Your task to perform on an android device: Open display settings Image 0: 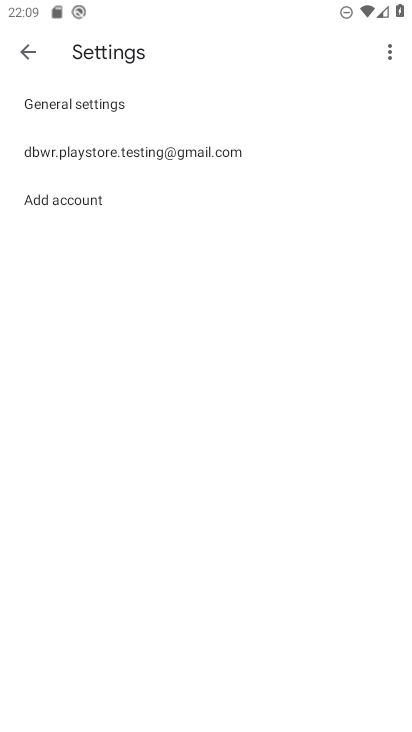
Step 0: press home button
Your task to perform on an android device: Open display settings Image 1: 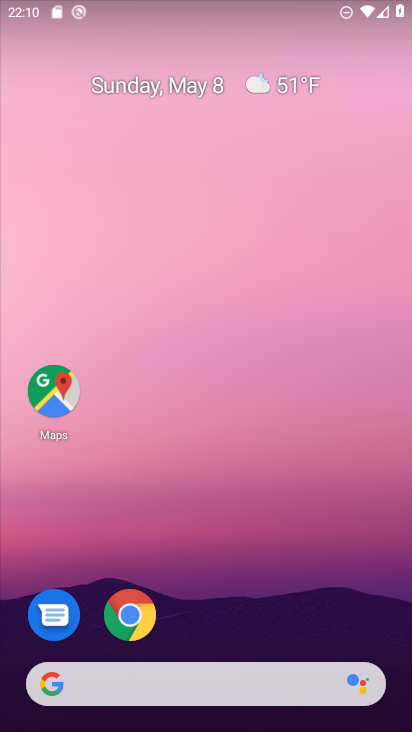
Step 1: drag from (287, 598) to (289, 37)
Your task to perform on an android device: Open display settings Image 2: 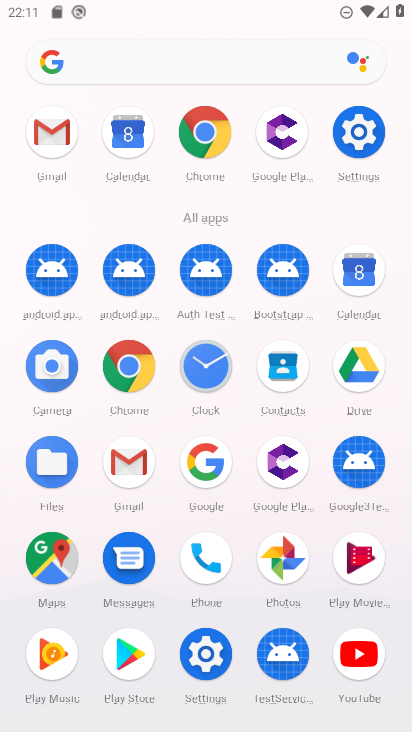
Step 2: click (368, 132)
Your task to perform on an android device: Open display settings Image 3: 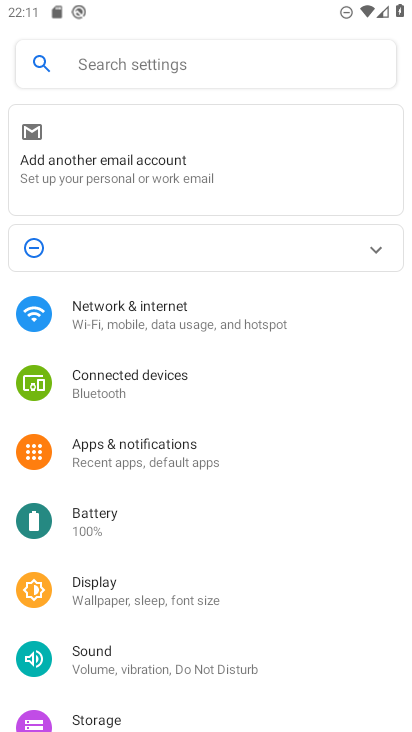
Step 3: click (155, 600)
Your task to perform on an android device: Open display settings Image 4: 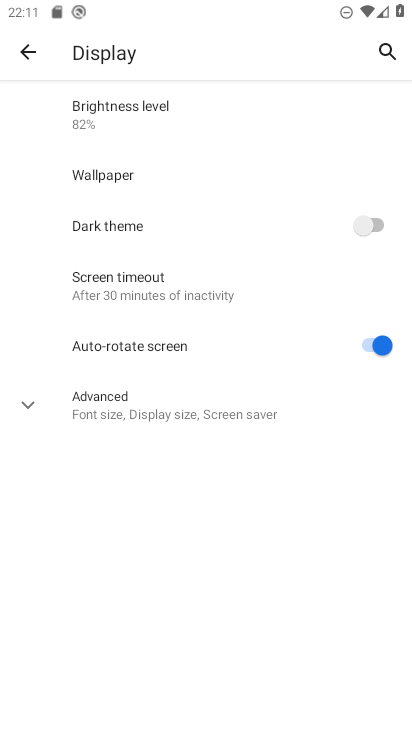
Step 4: task complete